Your task to perform on an android device: turn off smart reply in the gmail app Image 0: 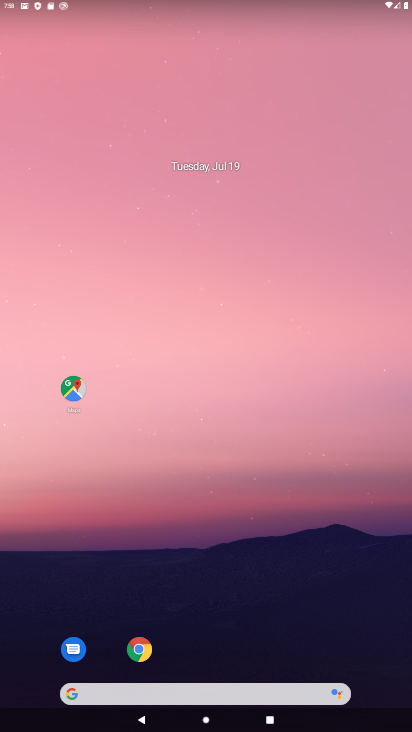
Step 0: drag from (246, 684) to (141, 96)
Your task to perform on an android device: turn off smart reply in the gmail app Image 1: 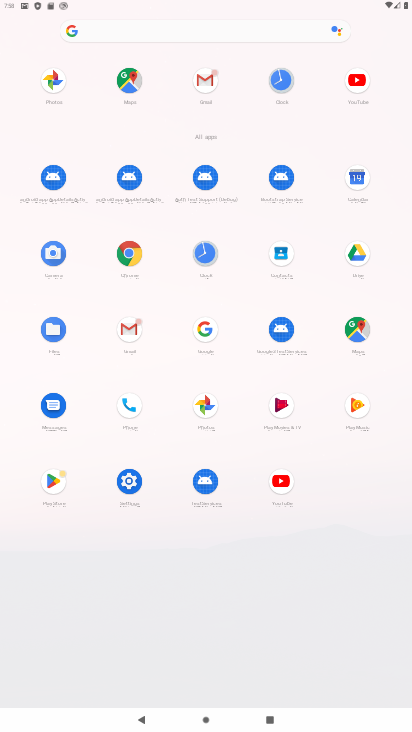
Step 1: click (133, 325)
Your task to perform on an android device: turn off smart reply in the gmail app Image 2: 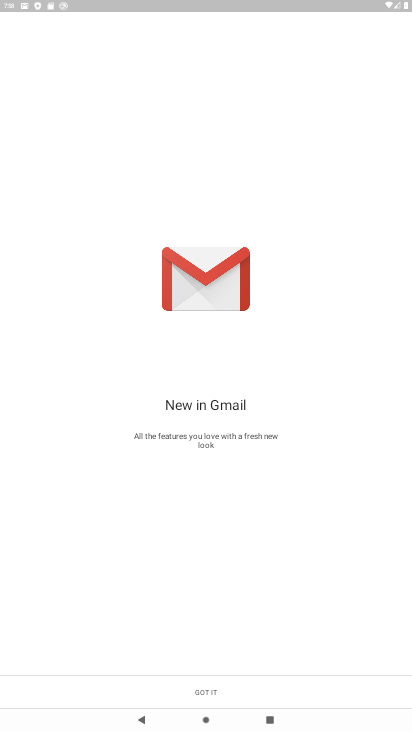
Step 2: click (218, 693)
Your task to perform on an android device: turn off smart reply in the gmail app Image 3: 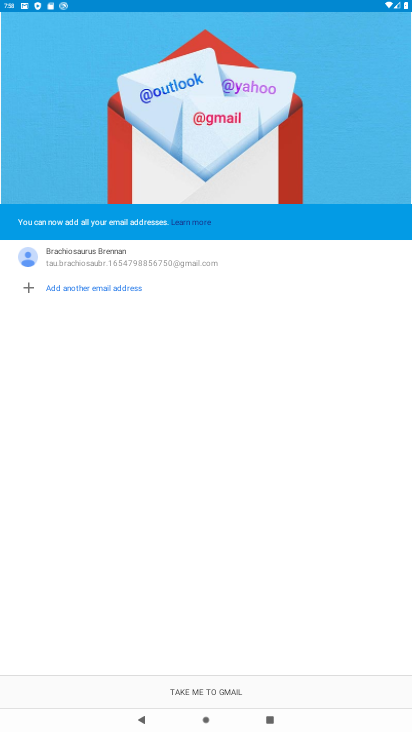
Step 3: click (218, 693)
Your task to perform on an android device: turn off smart reply in the gmail app Image 4: 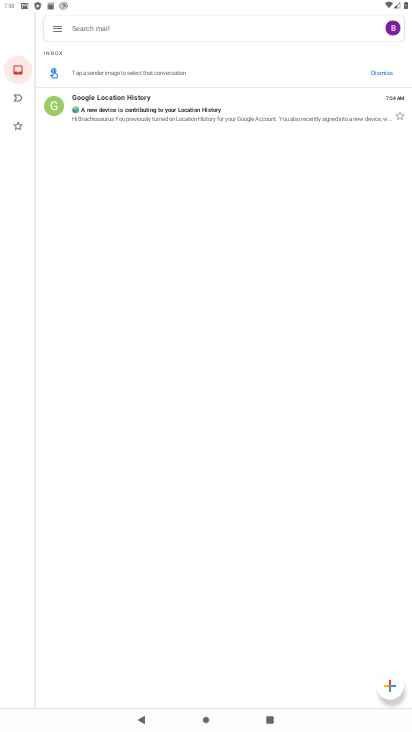
Step 4: click (52, 31)
Your task to perform on an android device: turn off smart reply in the gmail app Image 5: 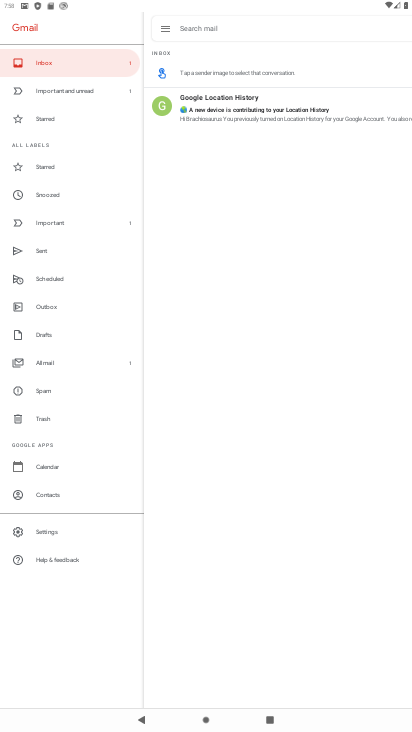
Step 5: click (62, 532)
Your task to perform on an android device: turn off smart reply in the gmail app Image 6: 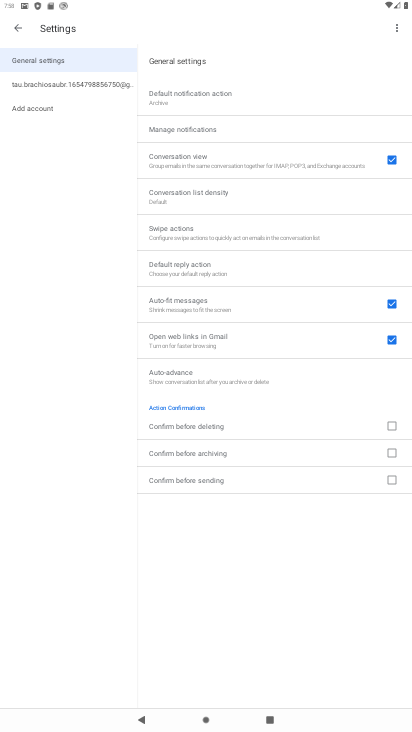
Step 6: click (62, 75)
Your task to perform on an android device: turn off smart reply in the gmail app Image 7: 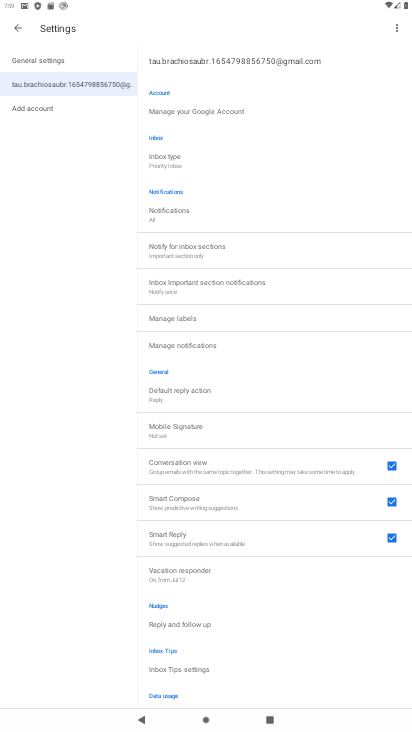
Step 7: click (215, 541)
Your task to perform on an android device: turn off smart reply in the gmail app Image 8: 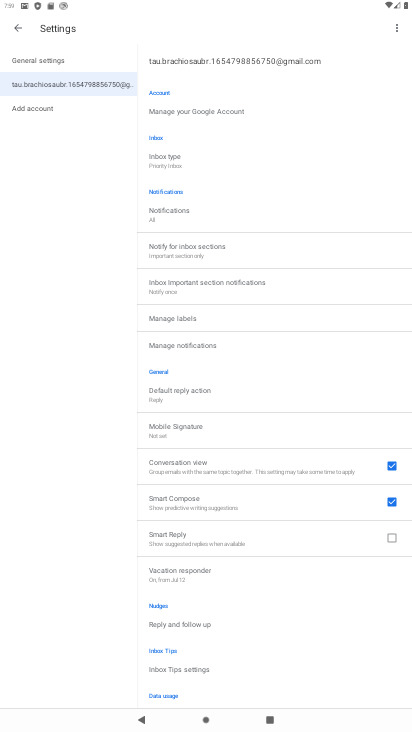
Step 8: task complete